Your task to perform on an android device: Open the stopwatch Image 0: 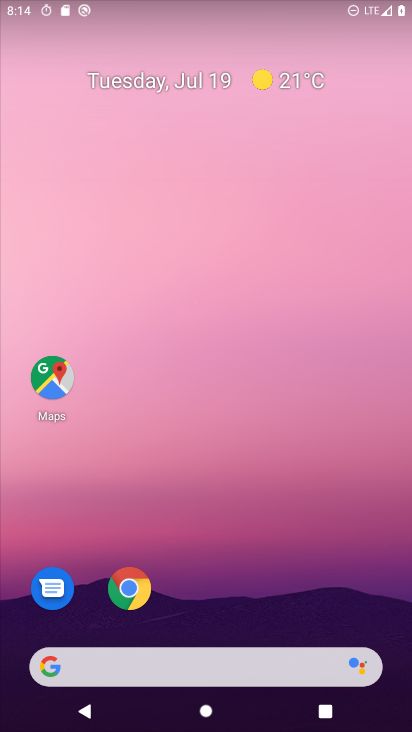
Step 0: drag from (269, 586) to (253, 24)
Your task to perform on an android device: Open the stopwatch Image 1: 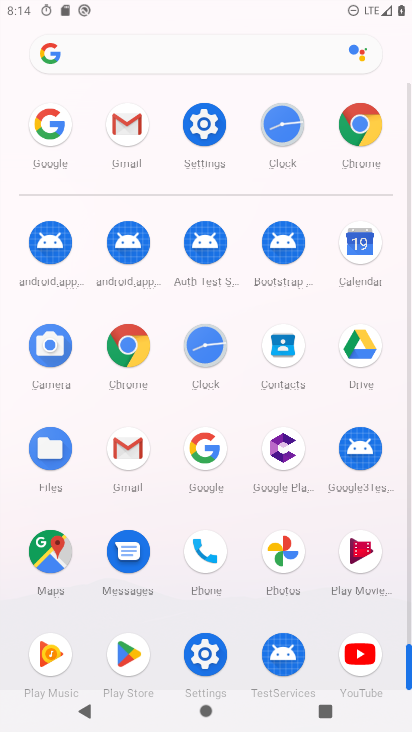
Step 1: click (197, 351)
Your task to perform on an android device: Open the stopwatch Image 2: 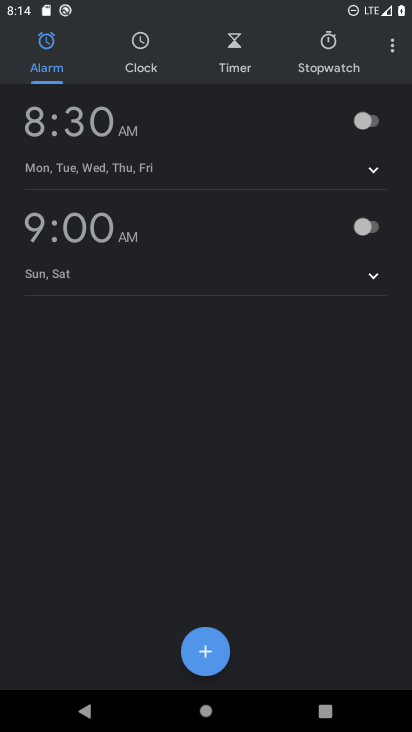
Step 2: click (314, 57)
Your task to perform on an android device: Open the stopwatch Image 3: 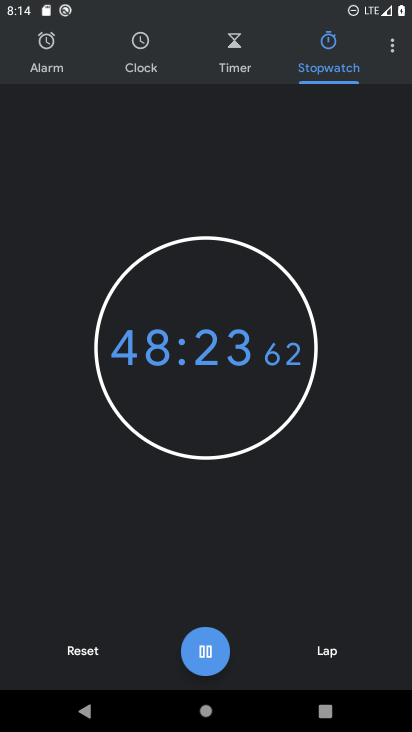
Step 3: click (244, 590)
Your task to perform on an android device: Open the stopwatch Image 4: 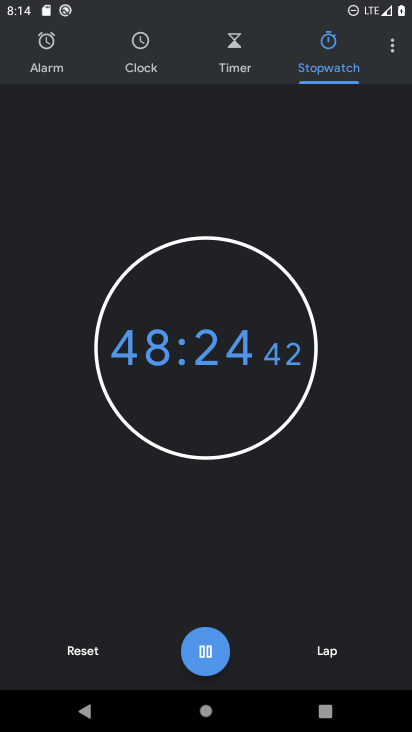
Step 4: click (206, 657)
Your task to perform on an android device: Open the stopwatch Image 5: 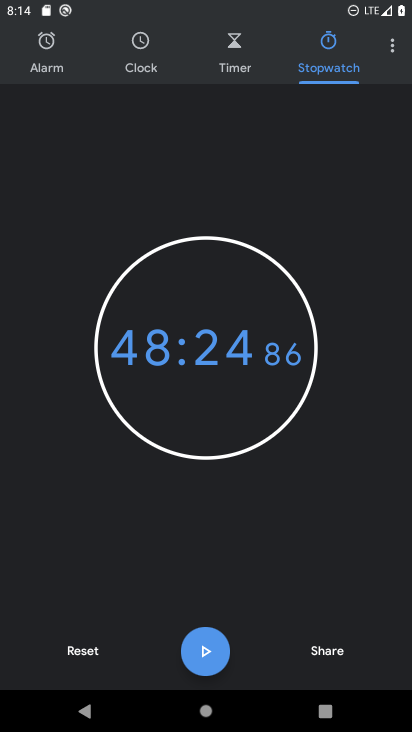
Step 5: task complete